Your task to perform on an android device: Go to Wikipedia Image 0: 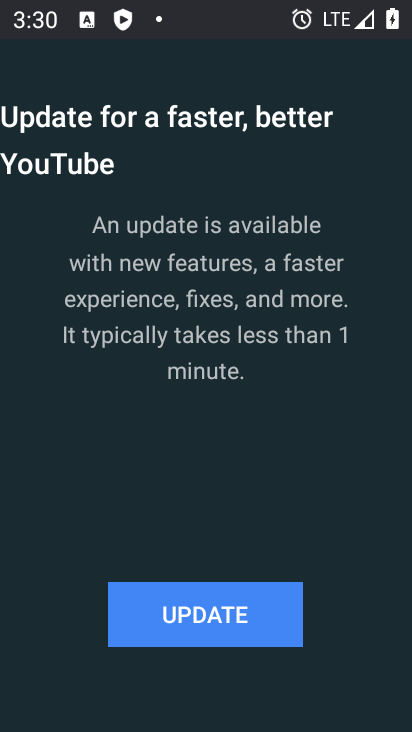
Step 0: press home button
Your task to perform on an android device: Go to Wikipedia Image 1: 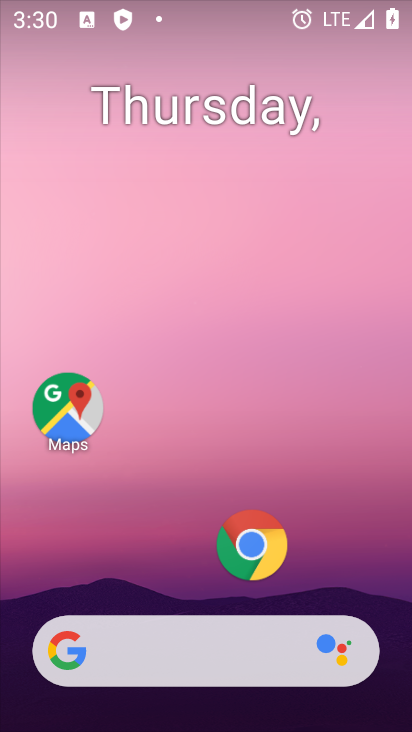
Step 1: drag from (317, 659) to (238, 54)
Your task to perform on an android device: Go to Wikipedia Image 2: 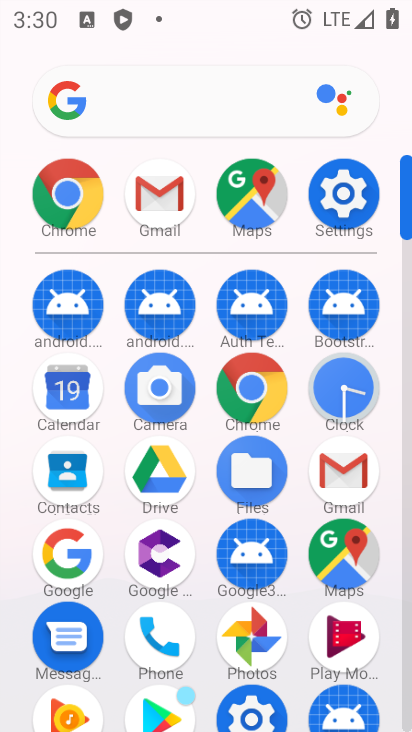
Step 2: click (240, 389)
Your task to perform on an android device: Go to Wikipedia Image 3: 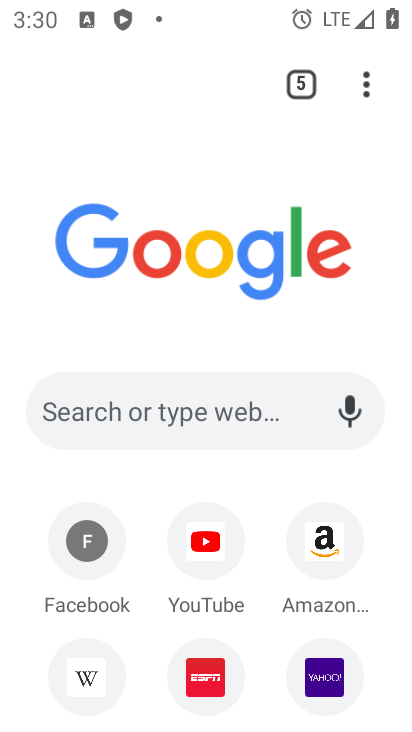
Step 3: drag from (307, 482) to (271, 79)
Your task to perform on an android device: Go to Wikipedia Image 4: 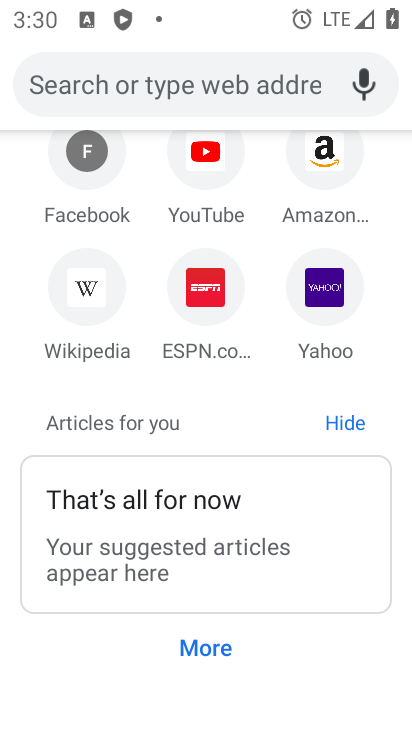
Step 4: click (87, 306)
Your task to perform on an android device: Go to Wikipedia Image 5: 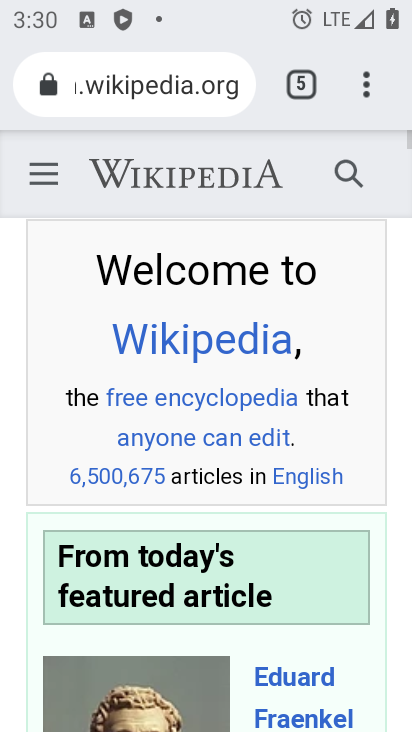
Step 5: task complete